Your task to perform on an android device: change text size in settings app Image 0: 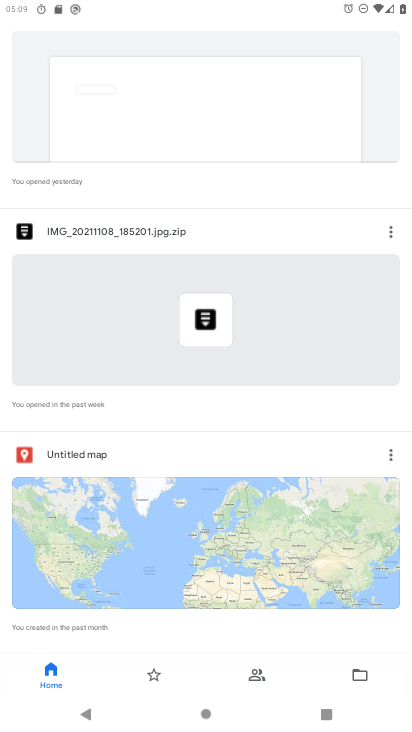
Step 0: press home button
Your task to perform on an android device: change text size in settings app Image 1: 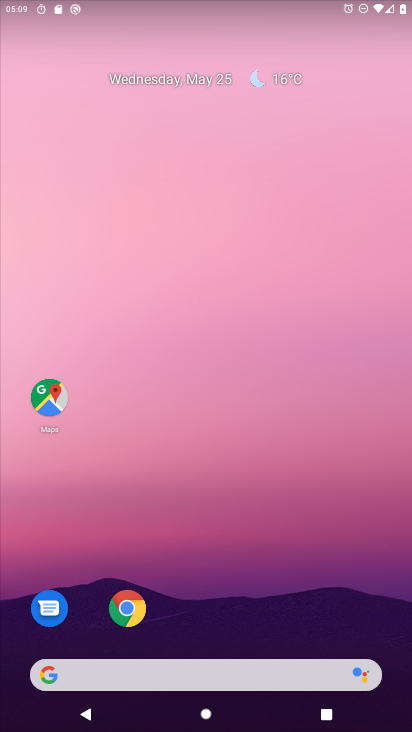
Step 1: drag from (317, 593) to (291, 61)
Your task to perform on an android device: change text size in settings app Image 2: 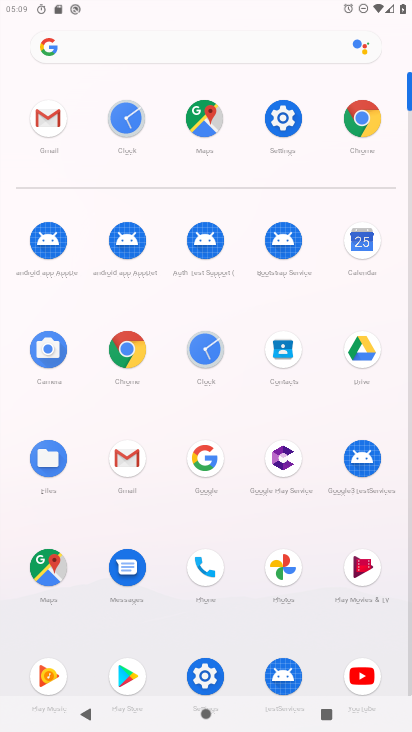
Step 2: click (293, 115)
Your task to perform on an android device: change text size in settings app Image 3: 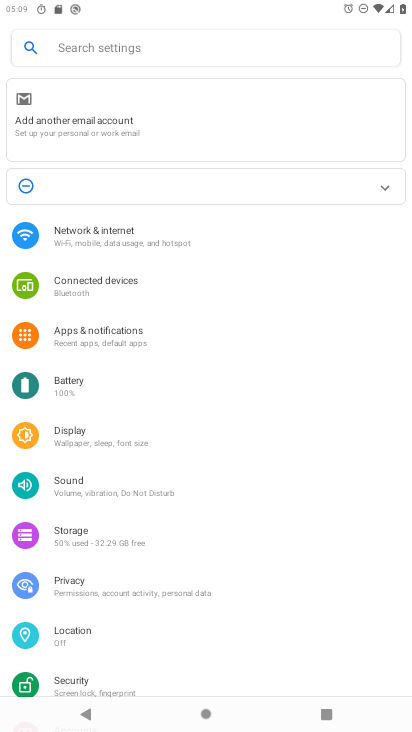
Step 3: click (103, 432)
Your task to perform on an android device: change text size in settings app Image 4: 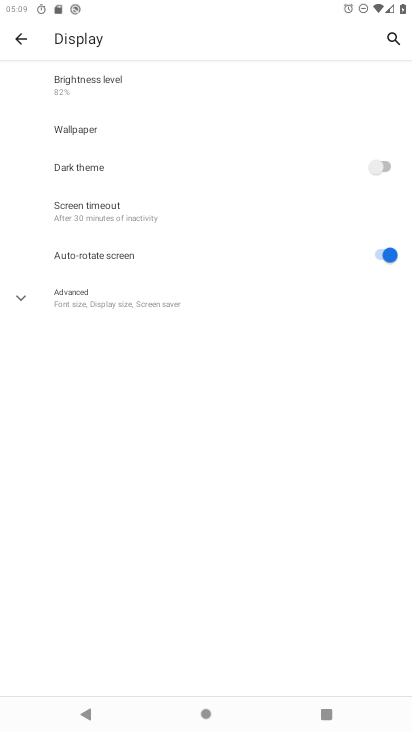
Step 4: click (99, 294)
Your task to perform on an android device: change text size in settings app Image 5: 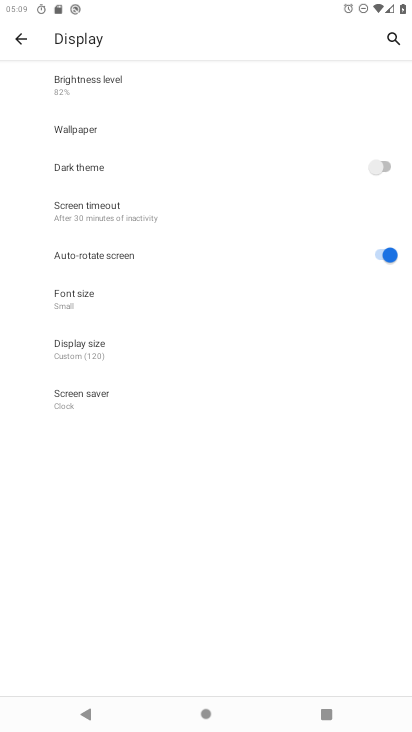
Step 5: click (88, 287)
Your task to perform on an android device: change text size in settings app Image 6: 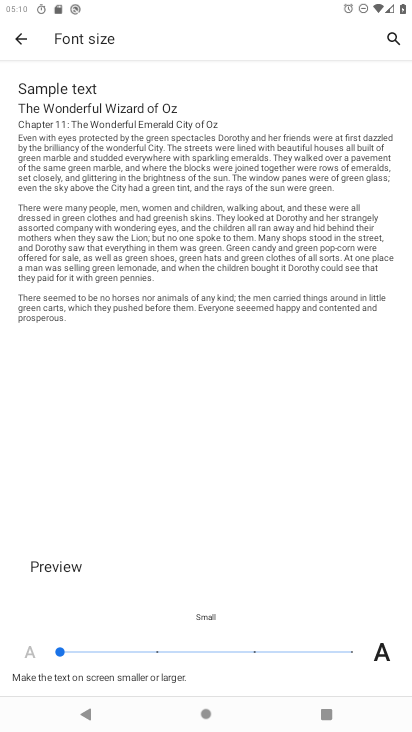
Step 6: click (108, 646)
Your task to perform on an android device: change text size in settings app Image 7: 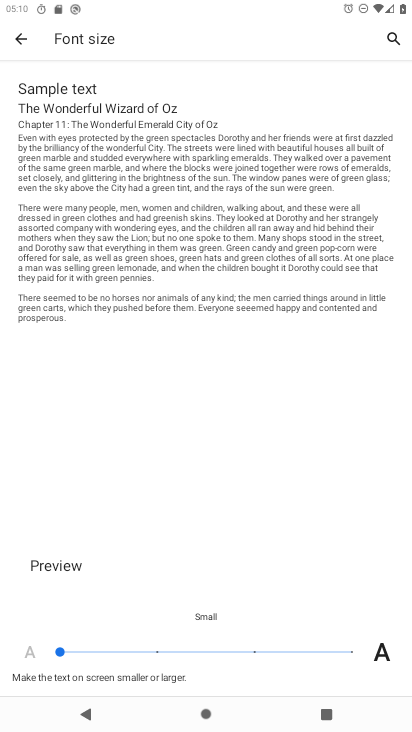
Step 7: click (102, 651)
Your task to perform on an android device: change text size in settings app Image 8: 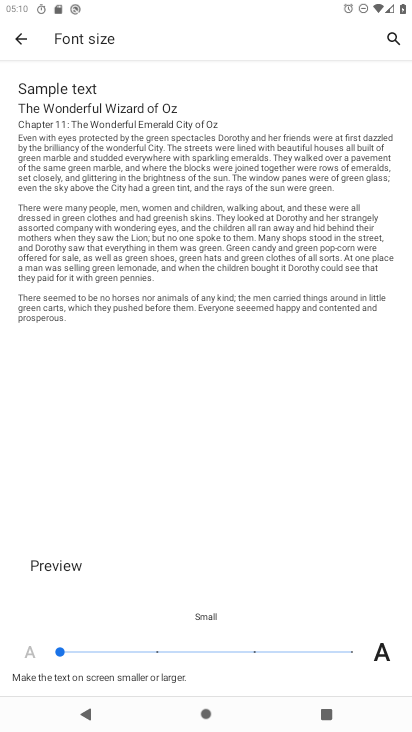
Step 8: click (150, 650)
Your task to perform on an android device: change text size in settings app Image 9: 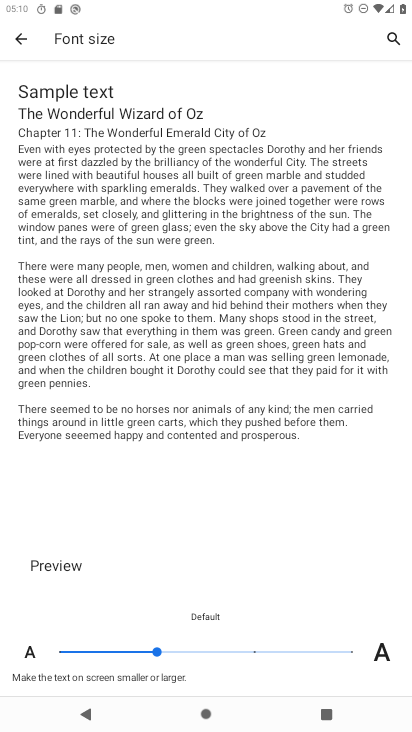
Step 9: click (153, 648)
Your task to perform on an android device: change text size in settings app Image 10: 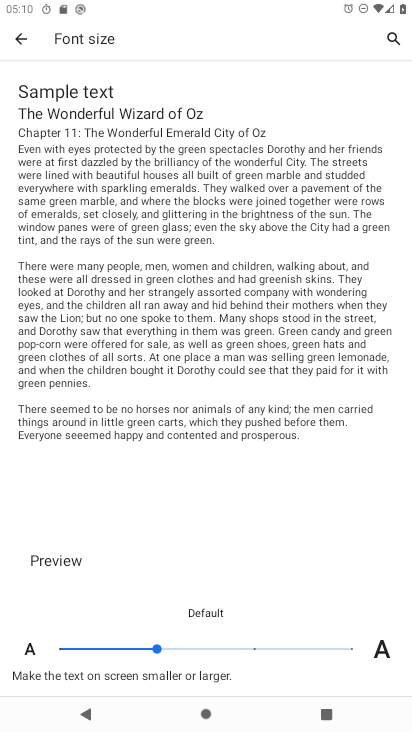
Step 10: task complete